Your task to perform on an android device: turn off improve location accuracy Image 0: 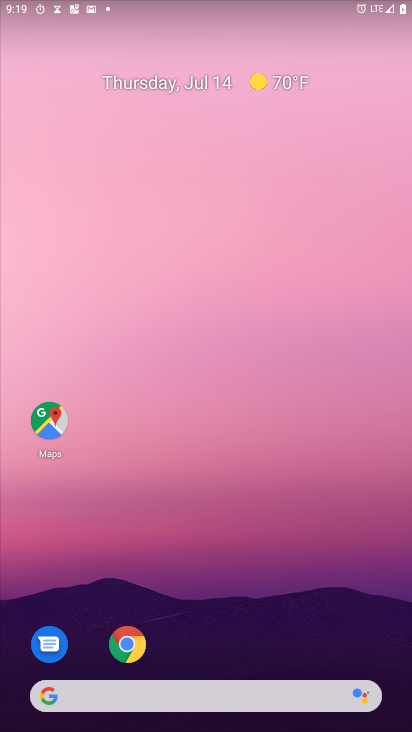
Step 0: drag from (185, 692) to (403, 85)
Your task to perform on an android device: turn off improve location accuracy Image 1: 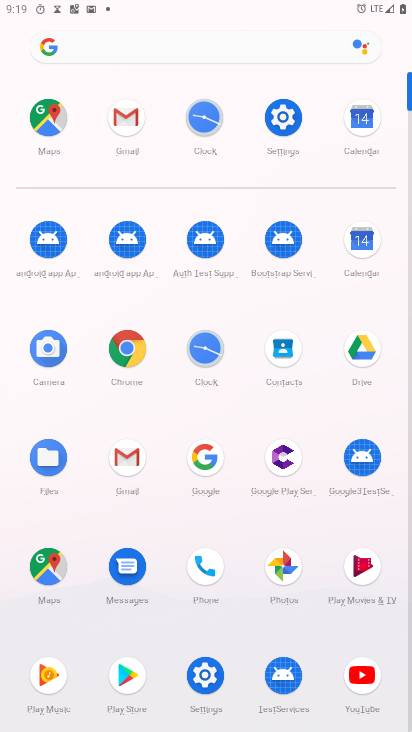
Step 1: click (281, 115)
Your task to perform on an android device: turn off improve location accuracy Image 2: 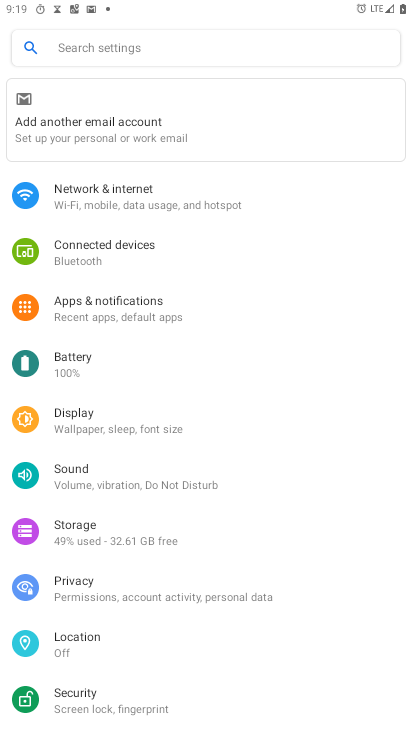
Step 2: click (102, 638)
Your task to perform on an android device: turn off improve location accuracy Image 3: 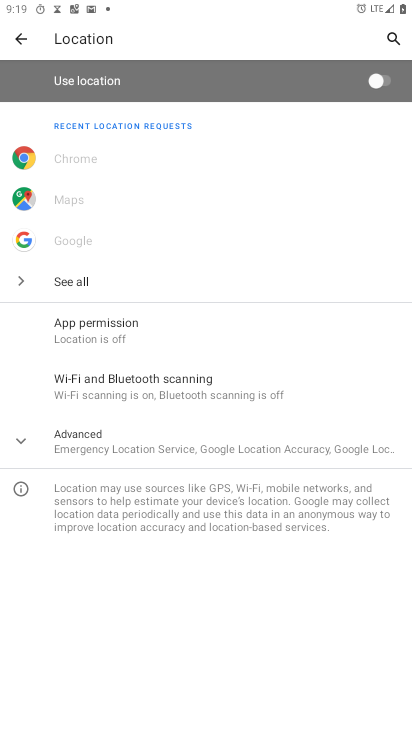
Step 3: click (165, 441)
Your task to perform on an android device: turn off improve location accuracy Image 4: 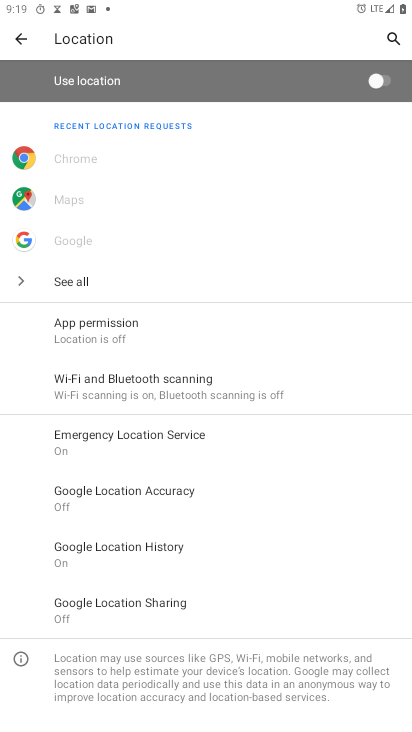
Step 4: click (176, 489)
Your task to perform on an android device: turn off improve location accuracy Image 5: 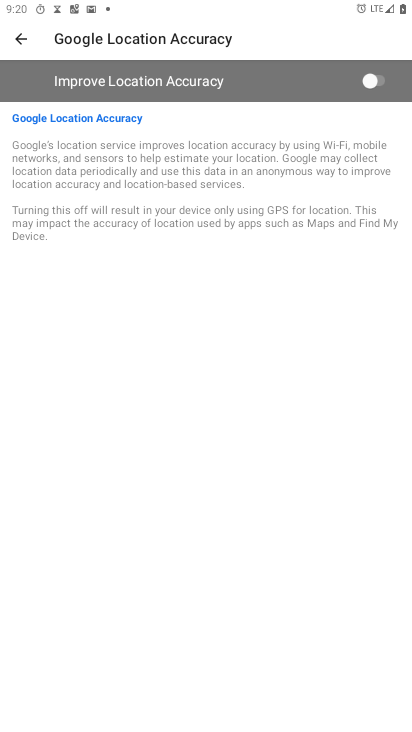
Step 5: task complete